Your task to perform on an android device: Go to Google Image 0: 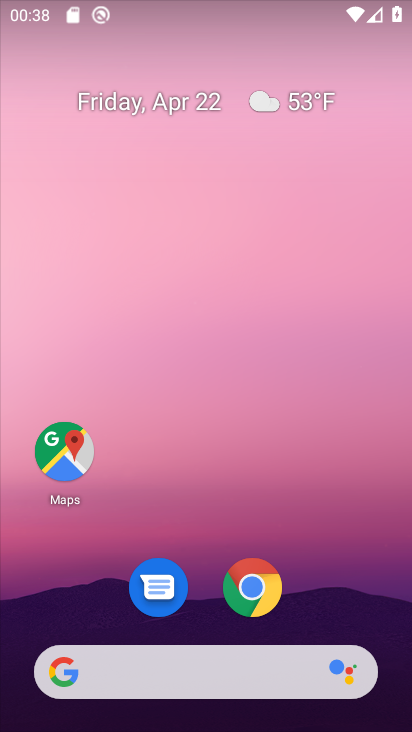
Step 0: drag from (313, 583) to (347, 104)
Your task to perform on an android device: Go to Google Image 1: 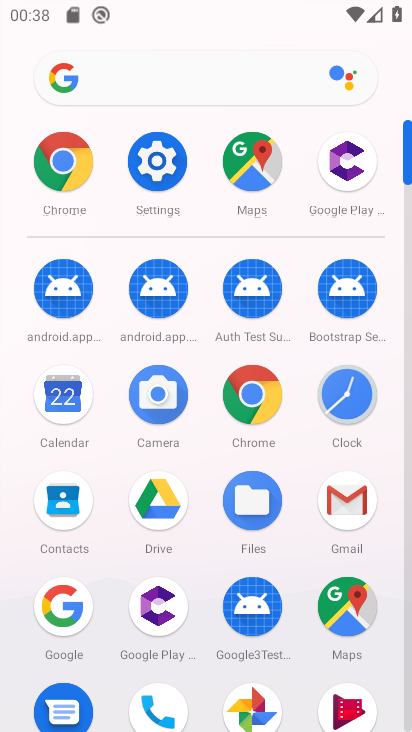
Step 1: click (68, 612)
Your task to perform on an android device: Go to Google Image 2: 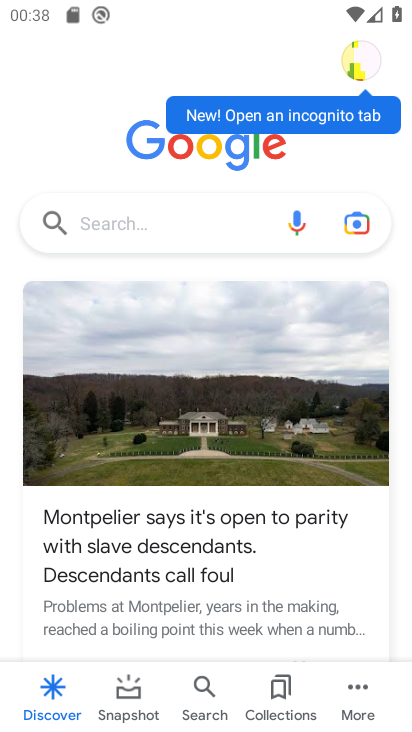
Step 2: task complete